Your task to perform on an android device: Do I have any events tomorrow? Image 0: 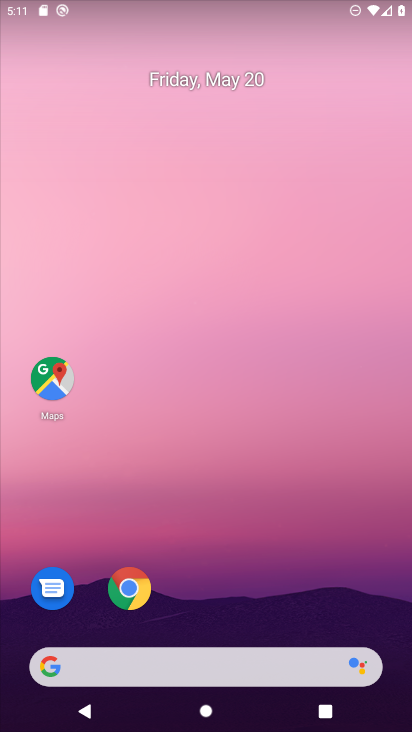
Step 0: drag from (273, 599) to (304, 357)
Your task to perform on an android device: Do I have any events tomorrow? Image 1: 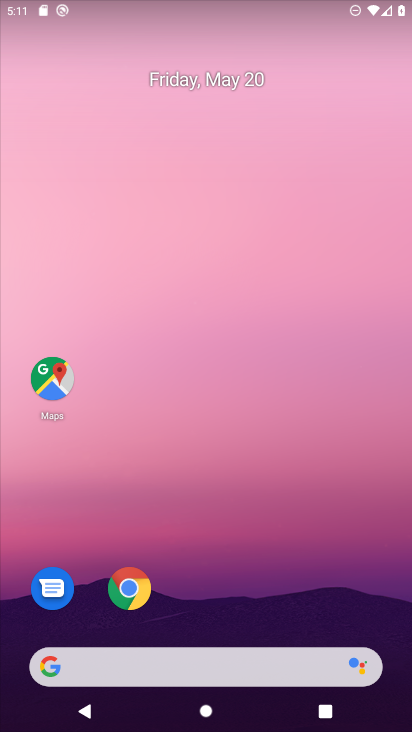
Step 1: drag from (251, 594) to (326, 238)
Your task to perform on an android device: Do I have any events tomorrow? Image 2: 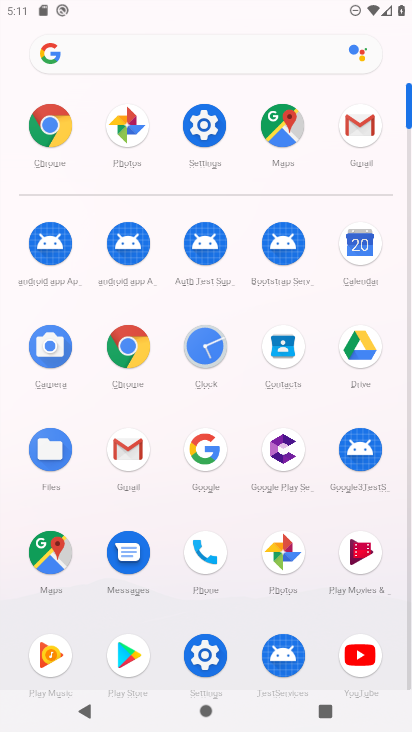
Step 2: click (366, 268)
Your task to perform on an android device: Do I have any events tomorrow? Image 3: 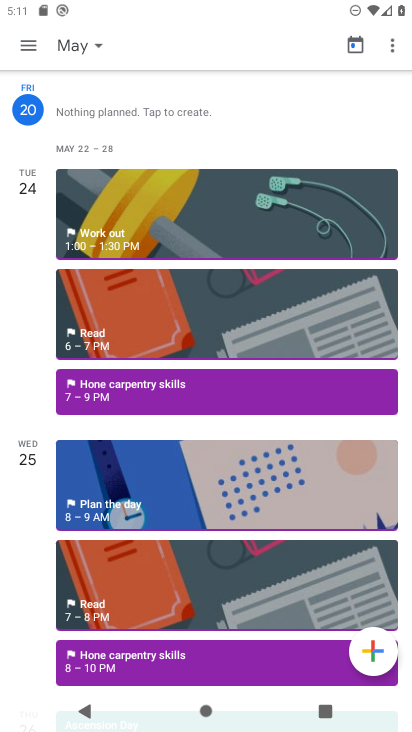
Step 3: click (219, 422)
Your task to perform on an android device: Do I have any events tomorrow? Image 4: 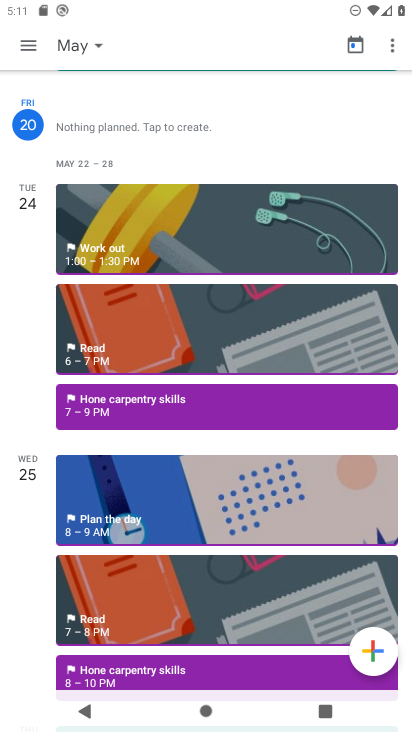
Step 4: task complete